Your task to perform on an android device: Open display settings Image 0: 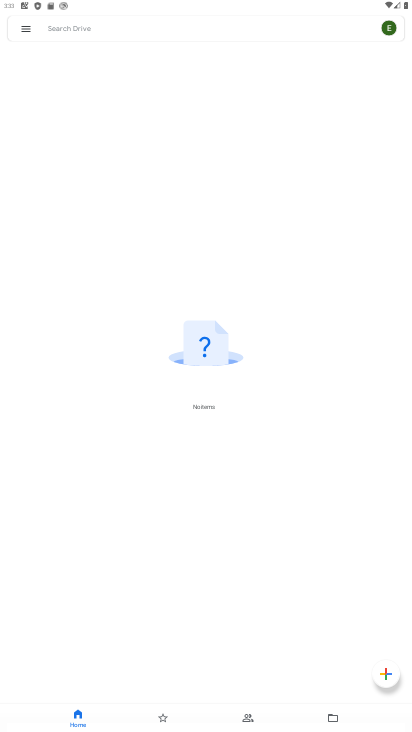
Step 0: press home button
Your task to perform on an android device: Open display settings Image 1: 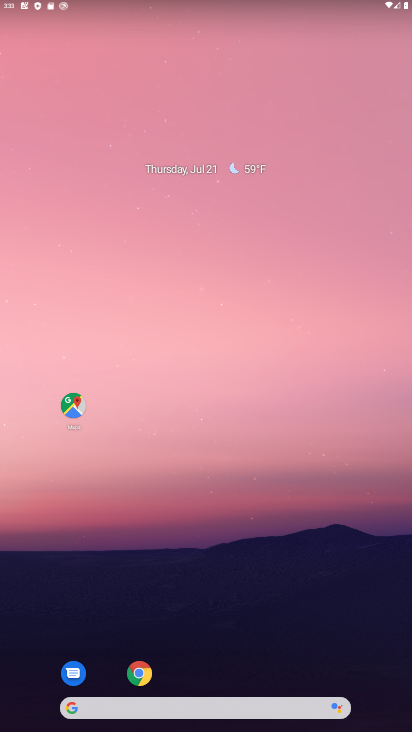
Step 1: drag from (366, 683) to (325, 107)
Your task to perform on an android device: Open display settings Image 2: 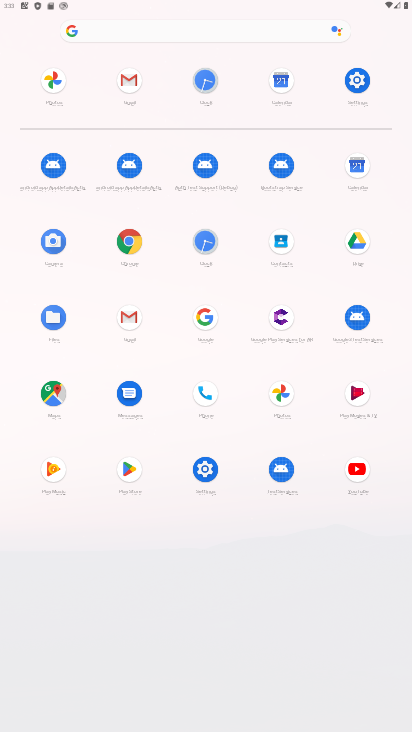
Step 2: click (203, 469)
Your task to perform on an android device: Open display settings Image 3: 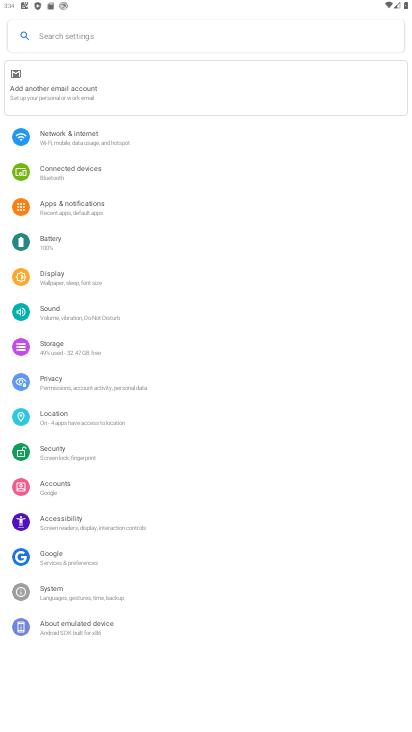
Step 3: click (43, 269)
Your task to perform on an android device: Open display settings Image 4: 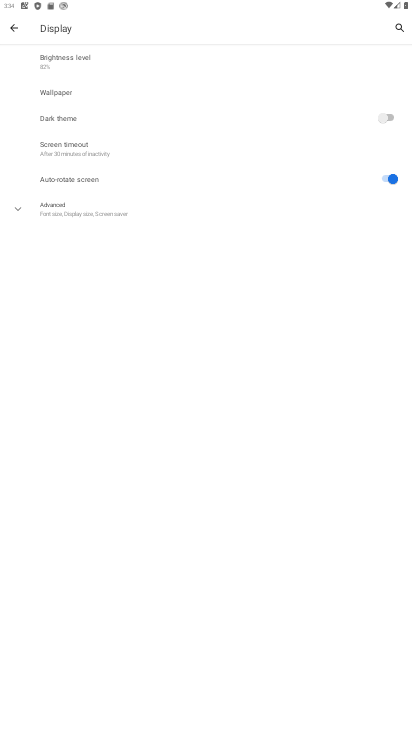
Step 4: click (15, 210)
Your task to perform on an android device: Open display settings Image 5: 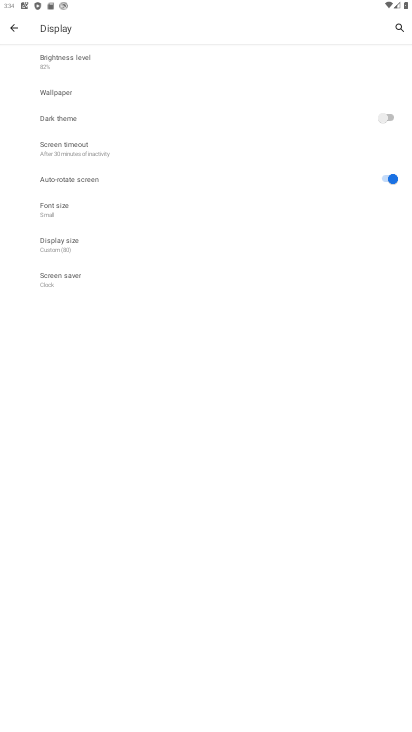
Step 5: task complete